Your task to perform on an android device: Do I have any events today? Image 0: 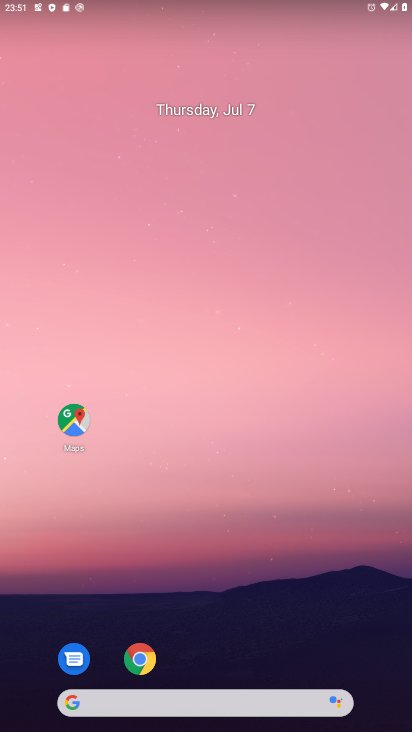
Step 0: click (183, 98)
Your task to perform on an android device: Do I have any events today? Image 1: 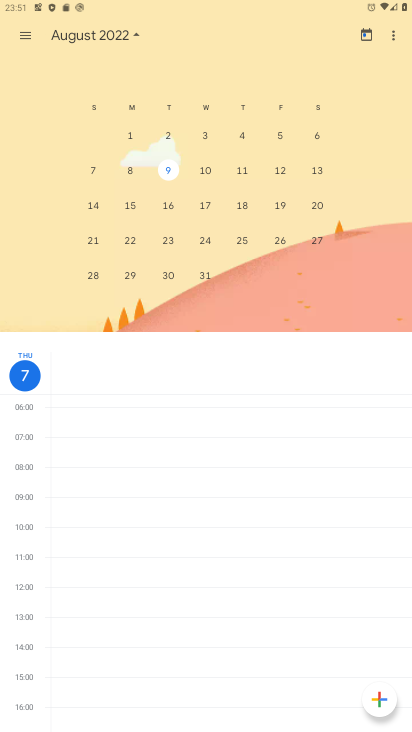
Step 1: click (97, 43)
Your task to perform on an android device: Do I have any events today? Image 2: 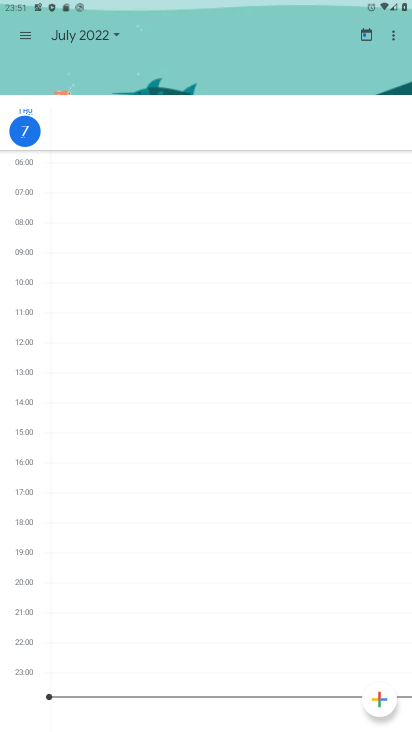
Step 2: click (97, 43)
Your task to perform on an android device: Do I have any events today? Image 3: 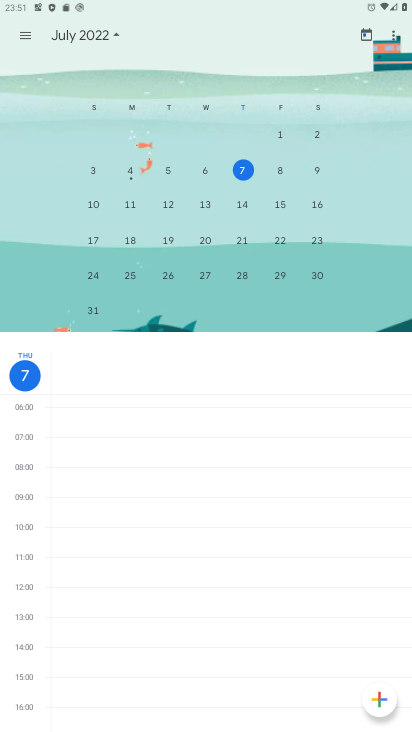
Step 3: click (17, 41)
Your task to perform on an android device: Do I have any events today? Image 4: 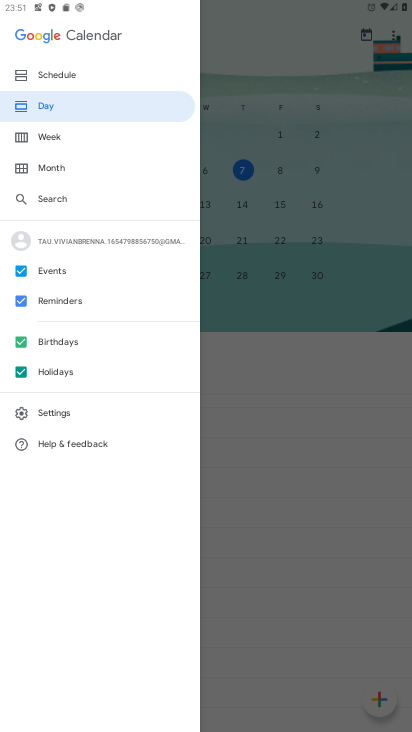
Step 4: click (19, 381)
Your task to perform on an android device: Do I have any events today? Image 5: 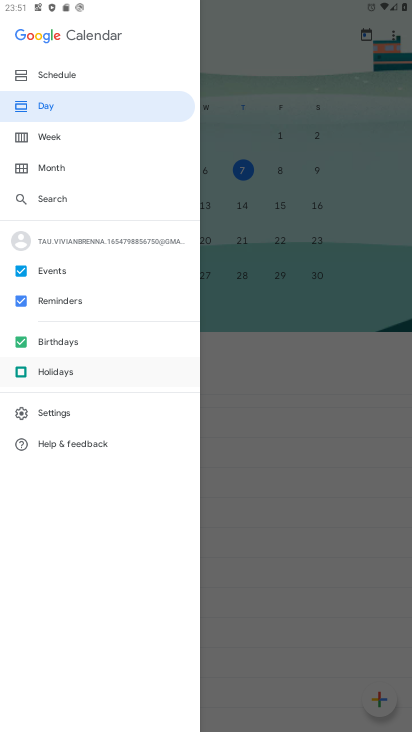
Step 5: click (53, 341)
Your task to perform on an android device: Do I have any events today? Image 6: 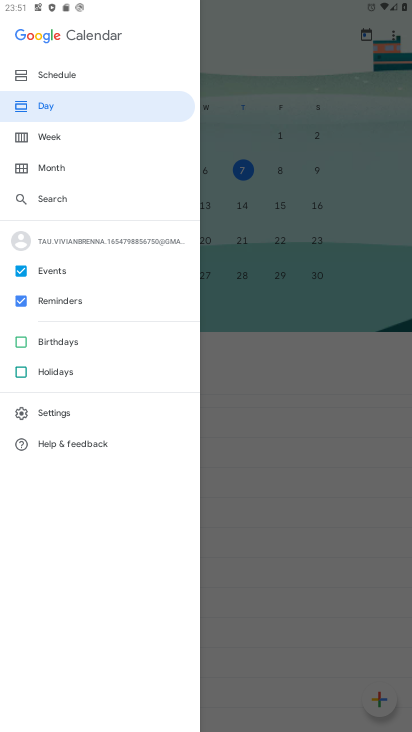
Step 6: click (59, 301)
Your task to perform on an android device: Do I have any events today? Image 7: 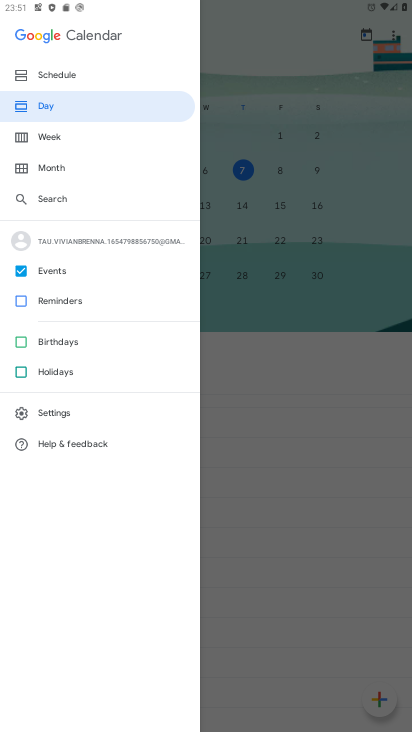
Step 7: click (390, 248)
Your task to perform on an android device: Do I have any events today? Image 8: 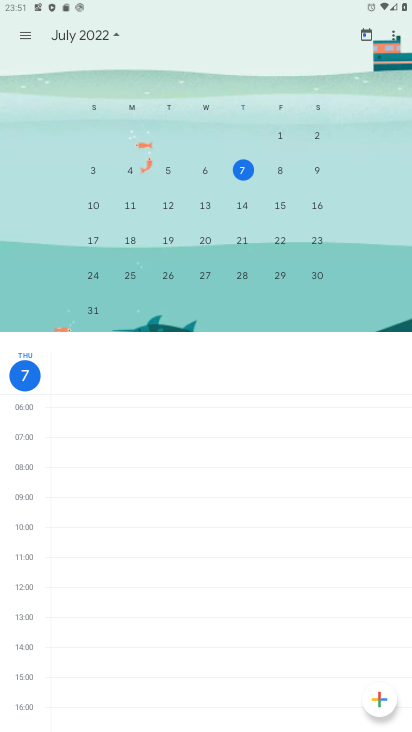
Step 8: task complete